Your task to perform on an android device: turn off wifi Image 0: 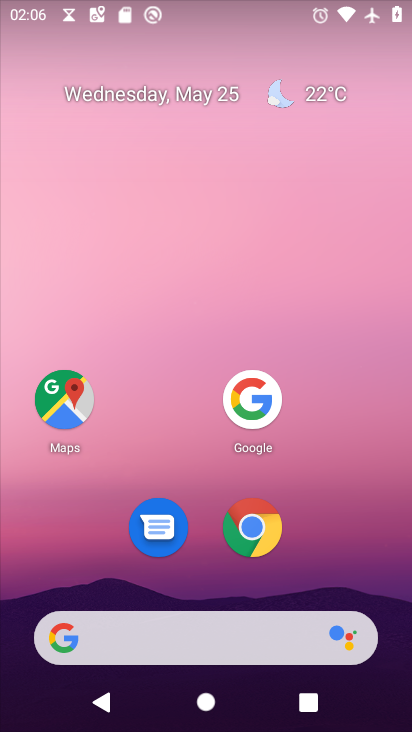
Step 0: press home button
Your task to perform on an android device: turn off wifi Image 1: 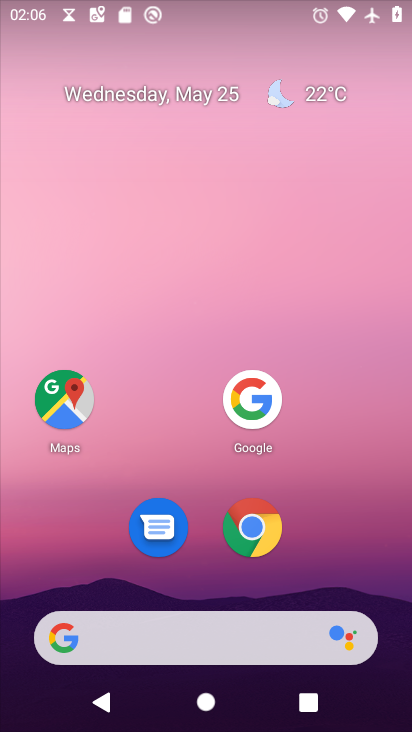
Step 1: drag from (192, 634) to (351, 76)
Your task to perform on an android device: turn off wifi Image 2: 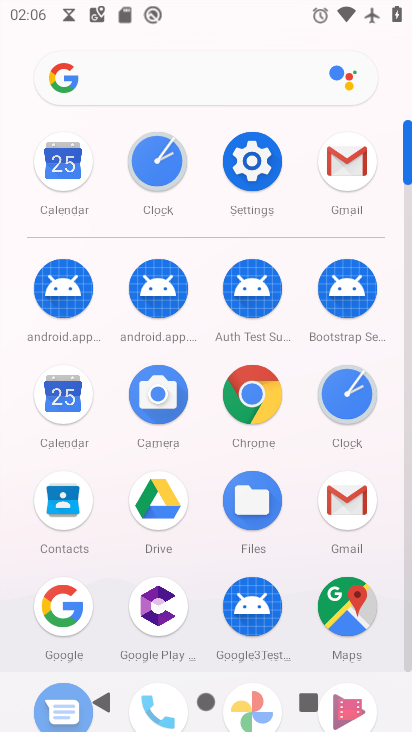
Step 2: click (263, 168)
Your task to perform on an android device: turn off wifi Image 3: 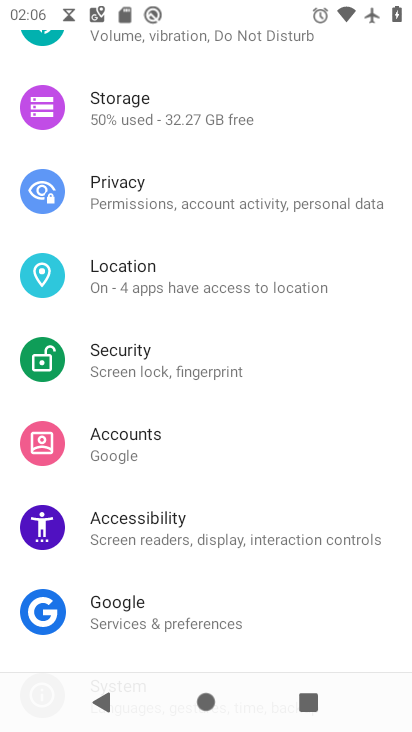
Step 3: drag from (337, 102) to (255, 602)
Your task to perform on an android device: turn off wifi Image 4: 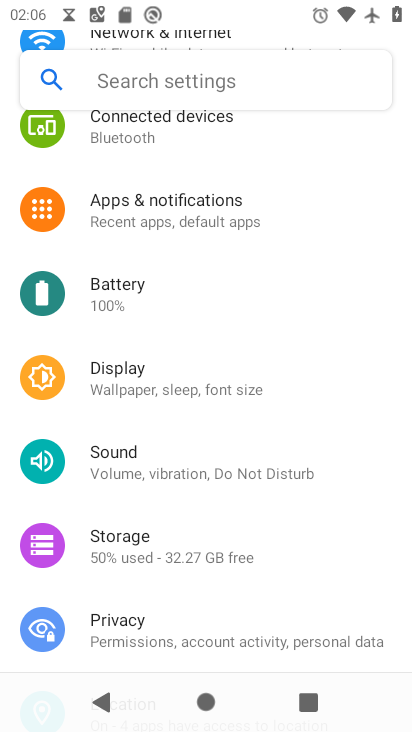
Step 4: drag from (318, 155) to (266, 580)
Your task to perform on an android device: turn off wifi Image 5: 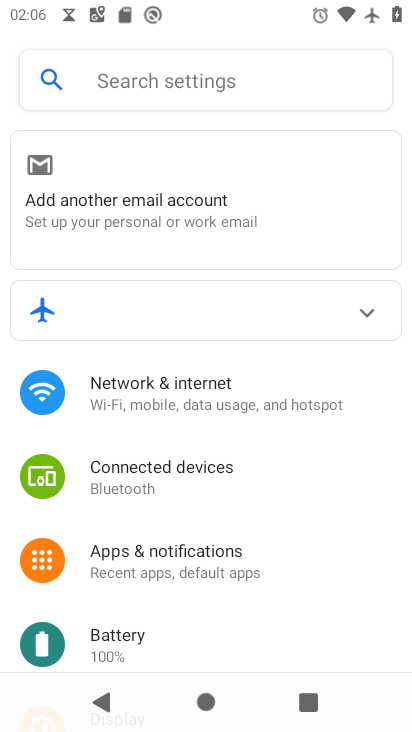
Step 5: click (200, 347)
Your task to perform on an android device: turn off wifi Image 6: 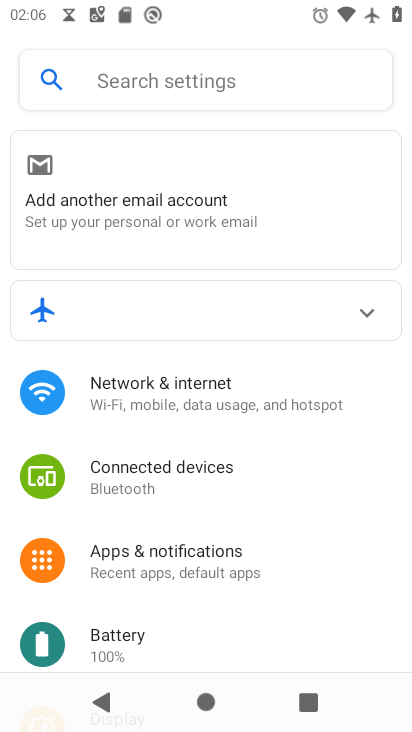
Step 6: click (161, 393)
Your task to perform on an android device: turn off wifi Image 7: 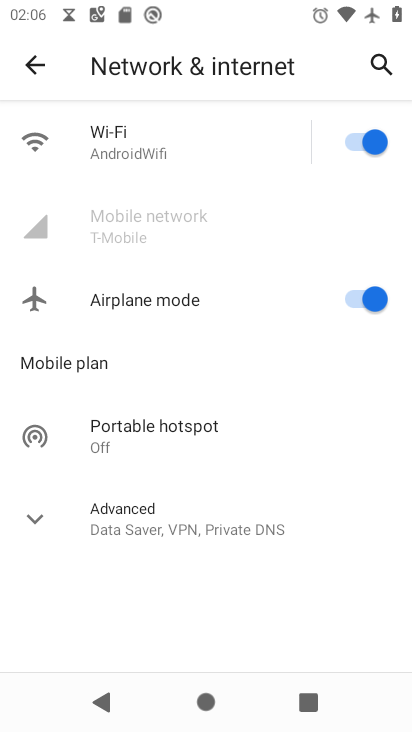
Step 7: click (347, 136)
Your task to perform on an android device: turn off wifi Image 8: 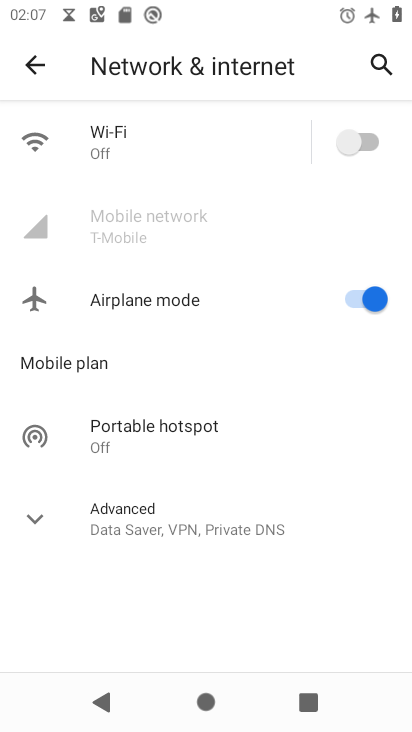
Step 8: task complete